Your task to perform on an android device: Go to Wikipedia Image 0: 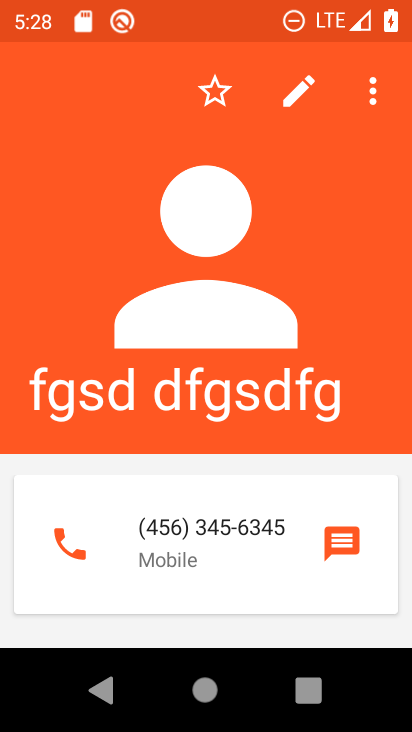
Step 0: press home button
Your task to perform on an android device: Go to Wikipedia Image 1: 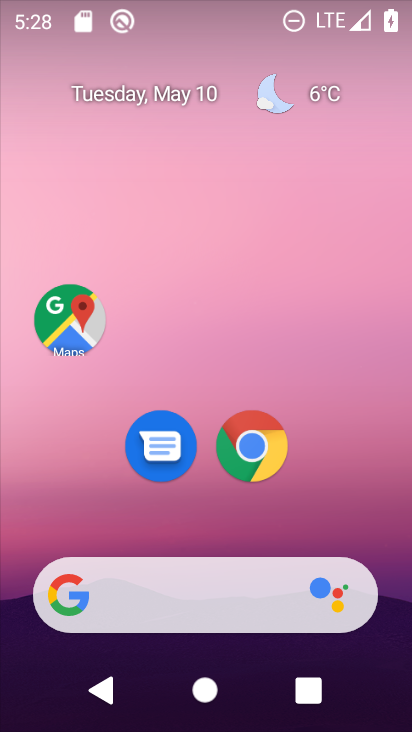
Step 1: click (254, 438)
Your task to perform on an android device: Go to Wikipedia Image 2: 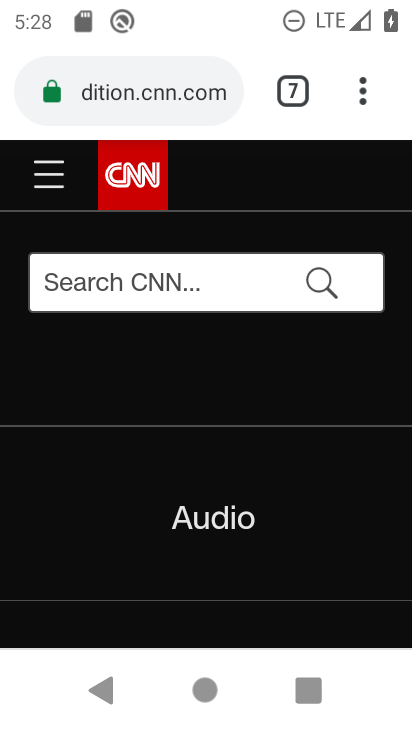
Step 2: click (367, 89)
Your task to perform on an android device: Go to Wikipedia Image 3: 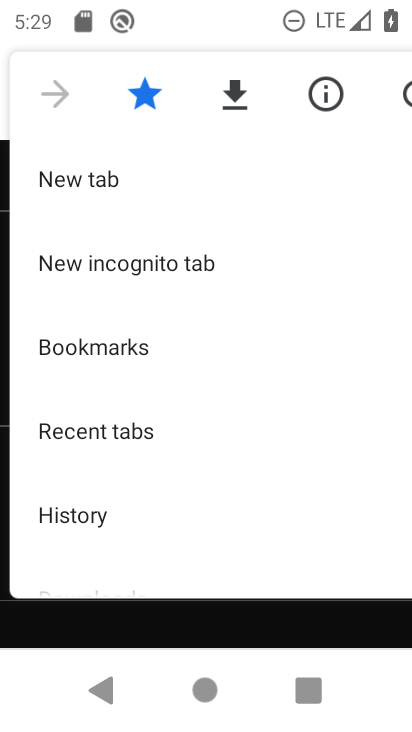
Step 3: click (98, 185)
Your task to perform on an android device: Go to Wikipedia Image 4: 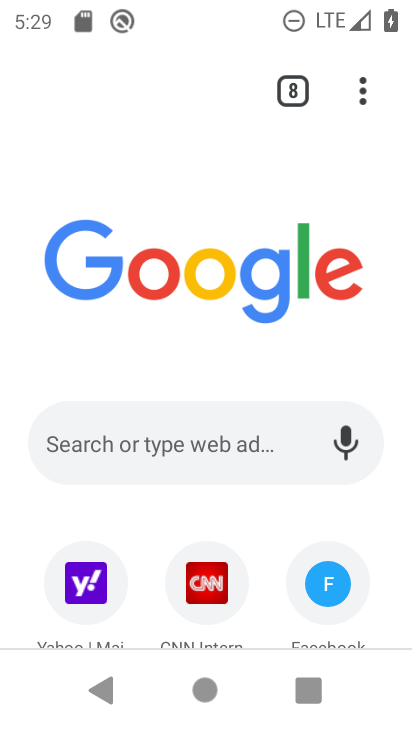
Step 4: drag from (130, 586) to (125, 296)
Your task to perform on an android device: Go to Wikipedia Image 5: 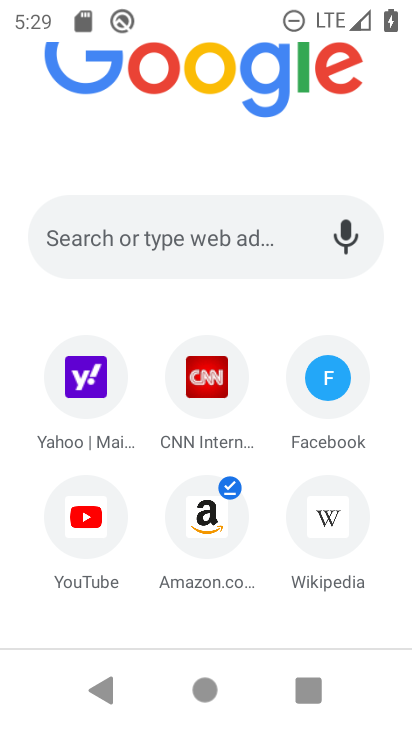
Step 5: click (342, 512)
Your task to perform on an android device: Go to Wikipedia Image 6: 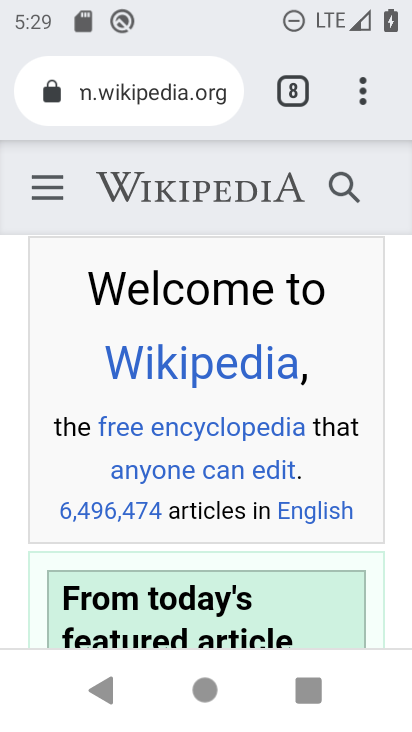
Step 6: task complete